Your task to perform on an android device: turn off wifi Image 0: 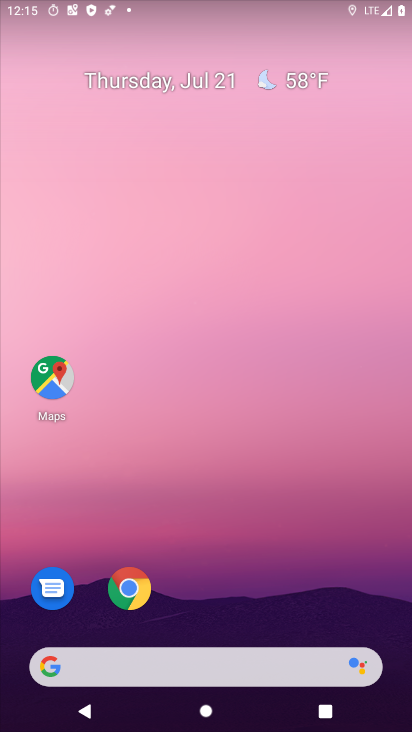
Step 0: drag from (266, 573) to (117, 3)
Your task to perform on an android device: turn off wifi Image 1: 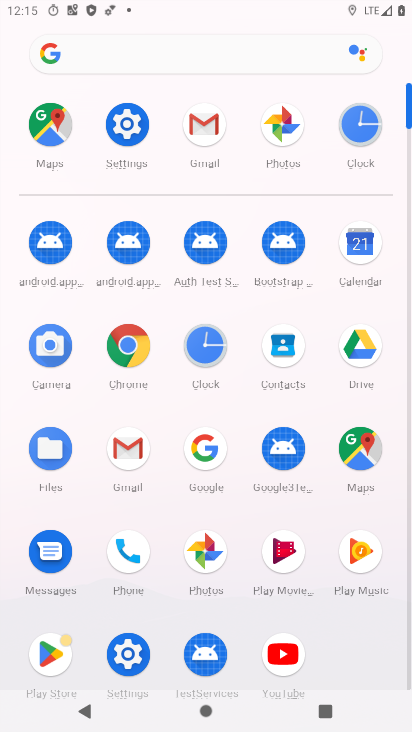
Step 1: click (121, 126)
Your task to perform on an android device: turn off wifi Image 2: 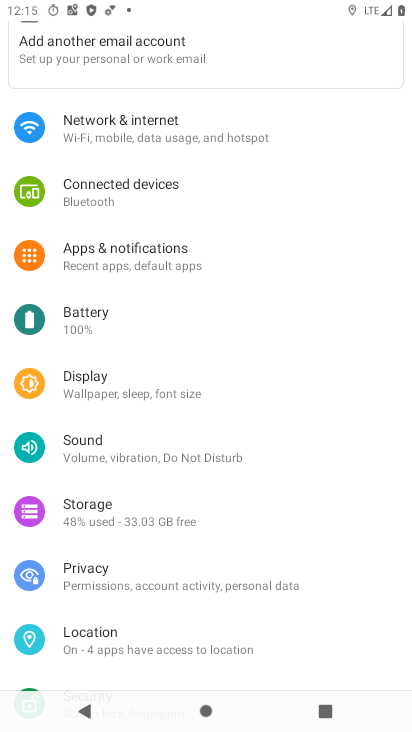
Step 2: click (148, 117)
Your task to perform on an android device: turn off wifi Image 3: 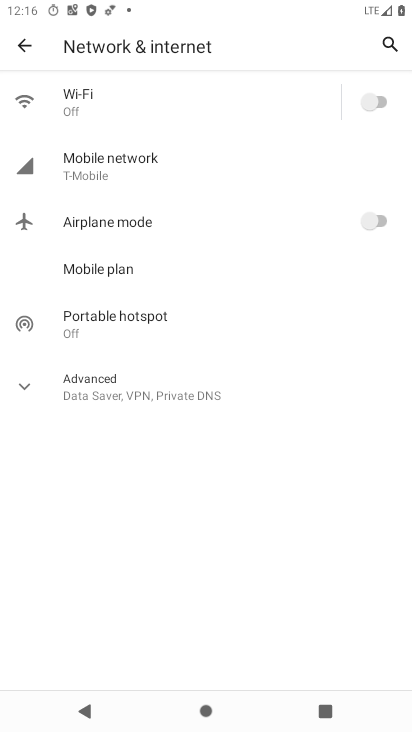
Step 3: task complete